Your task to perform on an android device: Go to privacy settings Image 0: 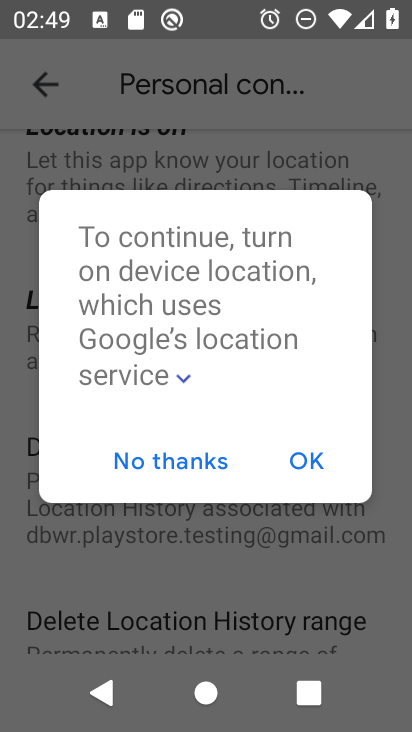
Step 0: press home button
Your task to perform on an android device: Go to privacy settings Image 1: 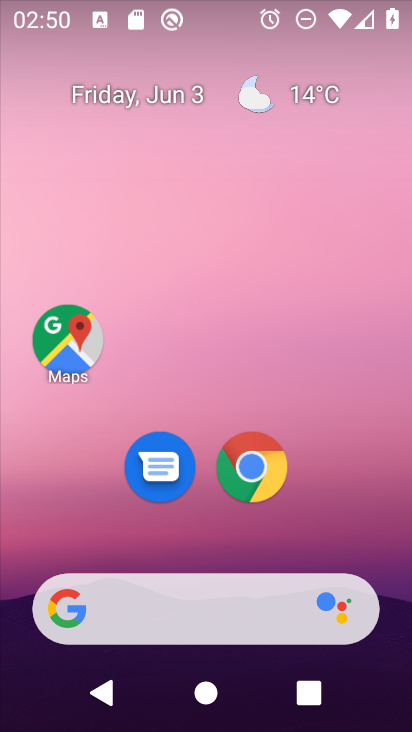
Step 1: drag from (361, 537) to (327, 88)
Your task to perform on an android device: Go to privacy settings Image 2: 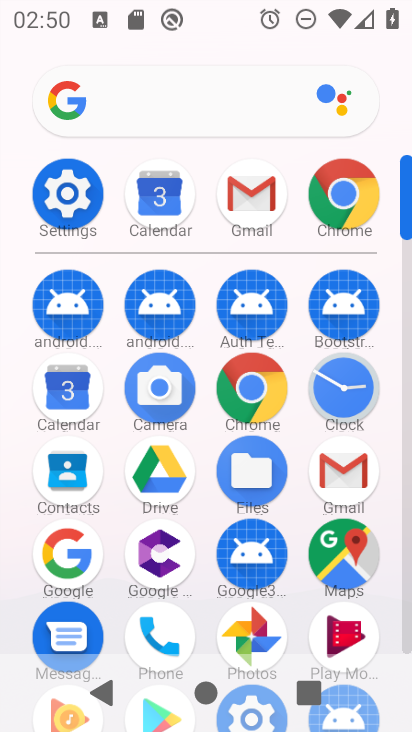
Step 2: click (406, 620)
Your task to perform on an android device: Go to privacy settings Image 3: 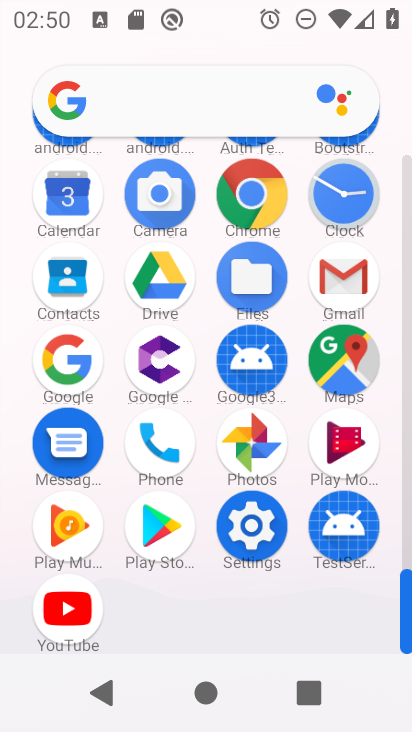
Step 3: click (251, 520)
Your task to perform on an android device: Go to privacy settings Image 4: 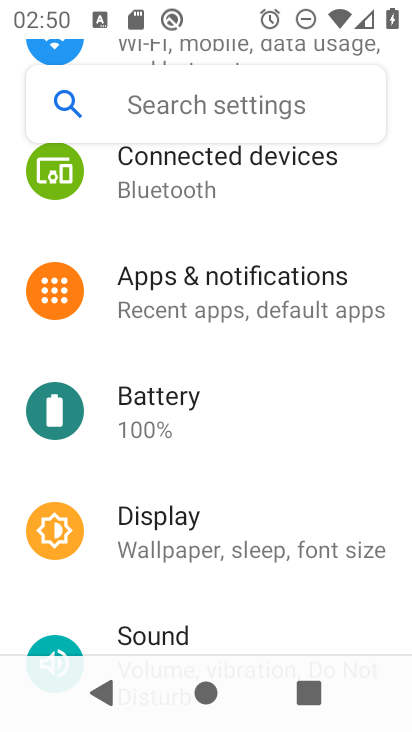
Step 4: drag from (312, 495) to (281, 137)
Your task to perform on an android device: Go to privacy settings Image 5: 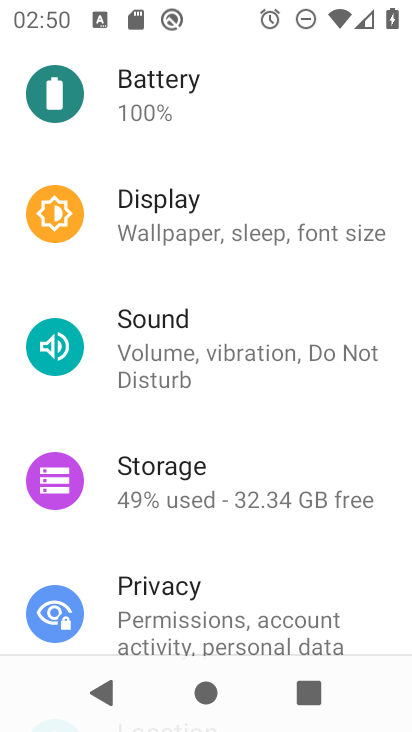
Step 5: drag from (273, 528) to (282, 267)
Your task to perform on an android device: Go to privacy settings Image 6: 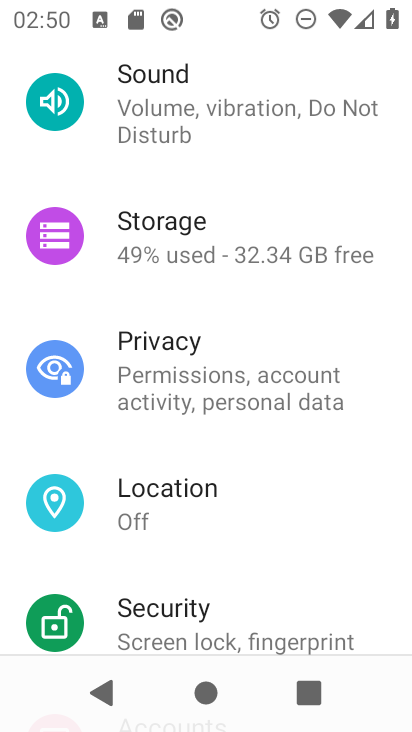
Step 6: click (167, 346)
Your task to perform on an android device: Go to privacy settings Image 7: 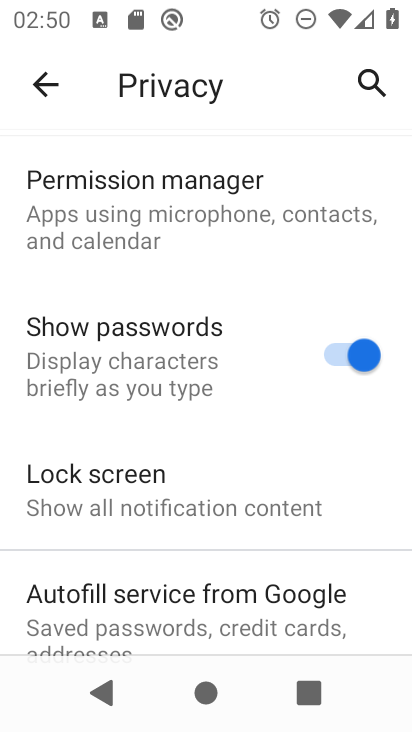
Step 7: drag from (172, 548) to (215, 169)
Your task to perform on an android device: Go to privacy settings Image 8: 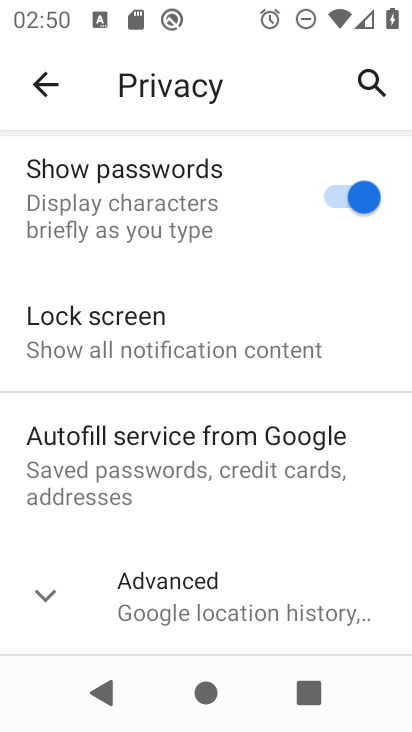
Step 8: click (42, 593)
Your task to perform on an android device: Go to privacy settings Image 9: 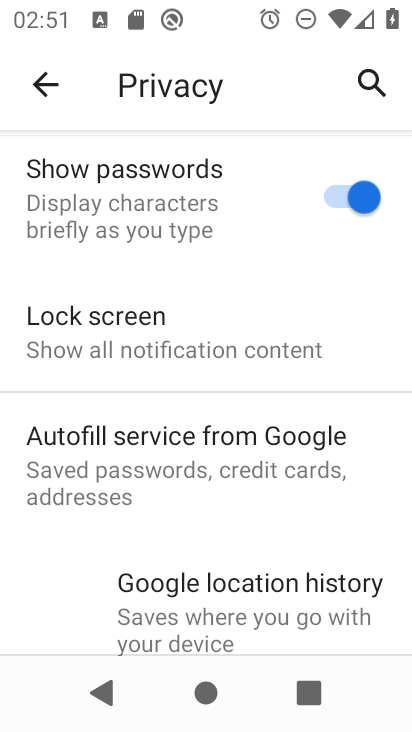
Step 9: task complete